Your task to perform on an android device: allow cookies in the chrome app Image 0: 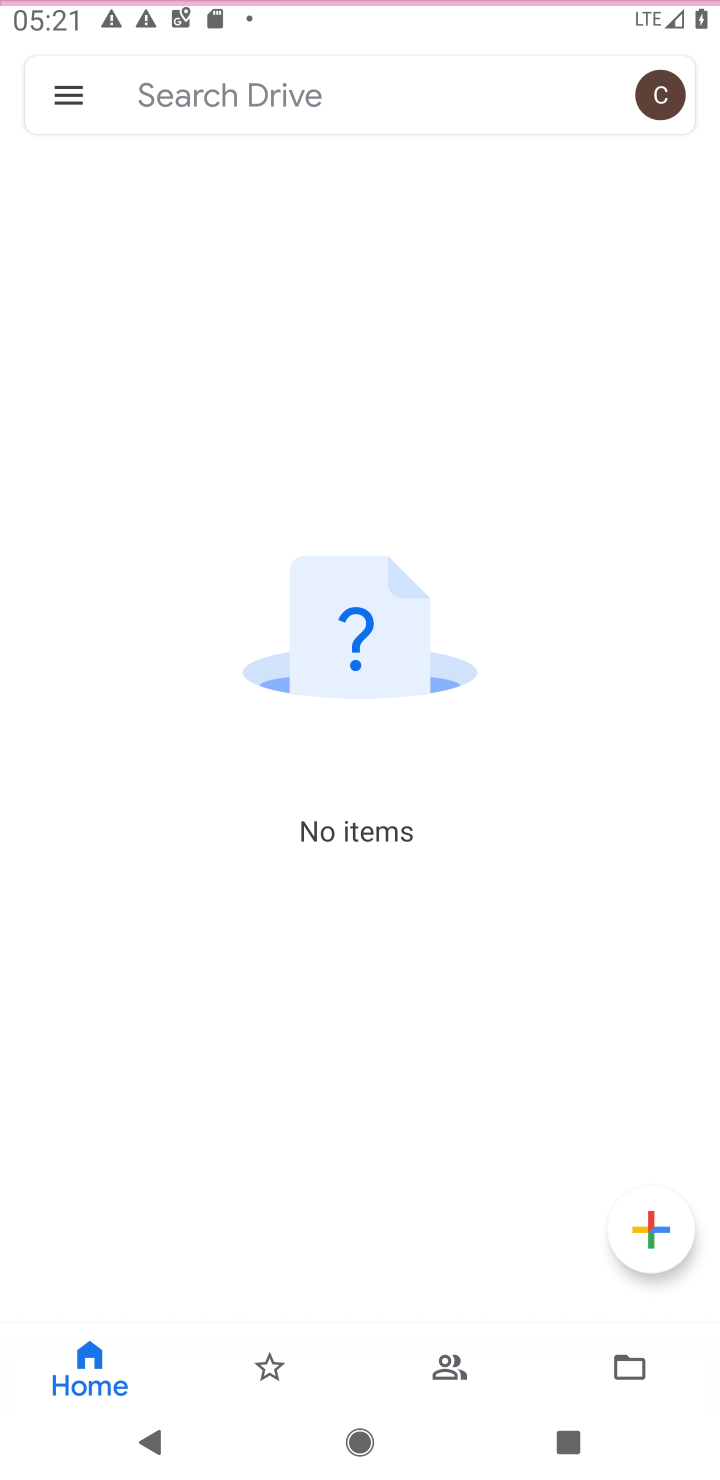
Step 0: press home button
Your task to perform on an android device: allow cookies in the chrome app Image 1: 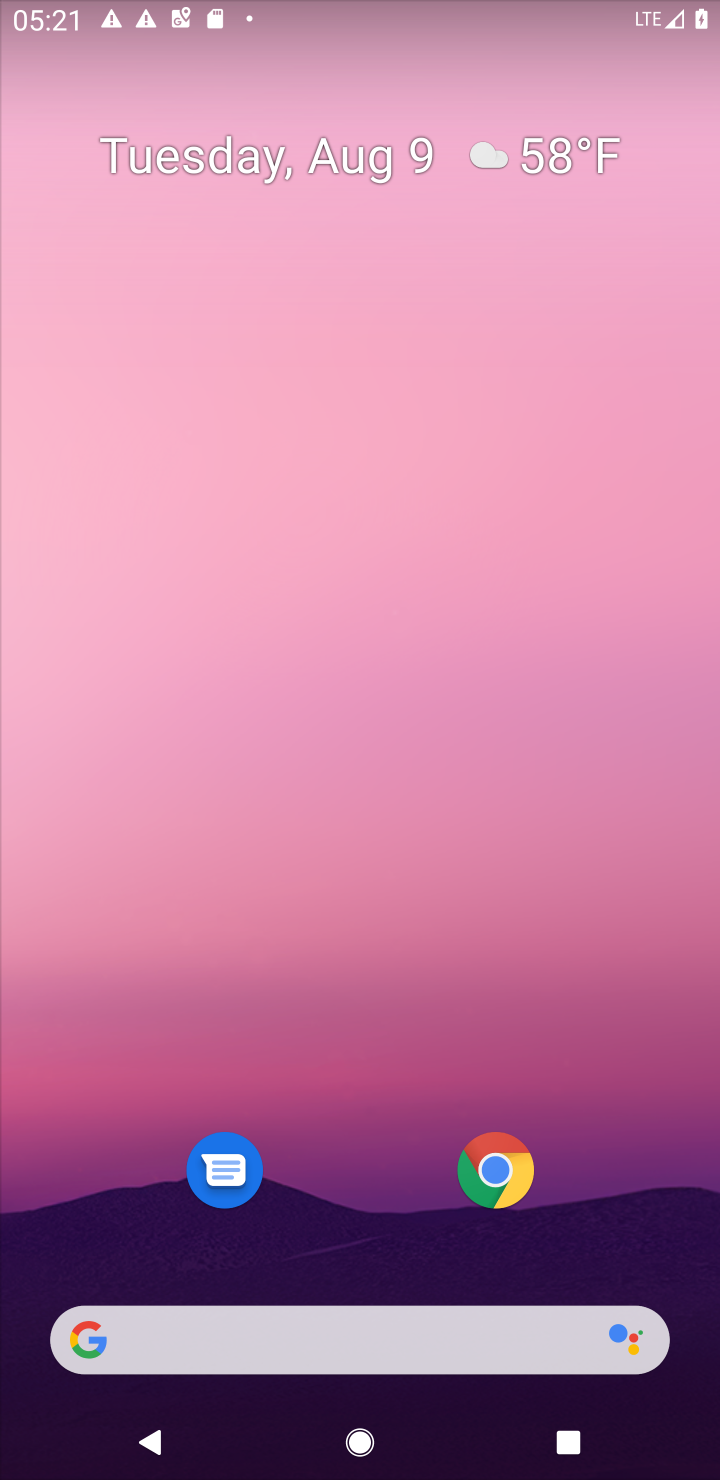
Step 1: click (486, 1172)
Your task to perform on an android device: allow cookies in the chrome app Image 2: 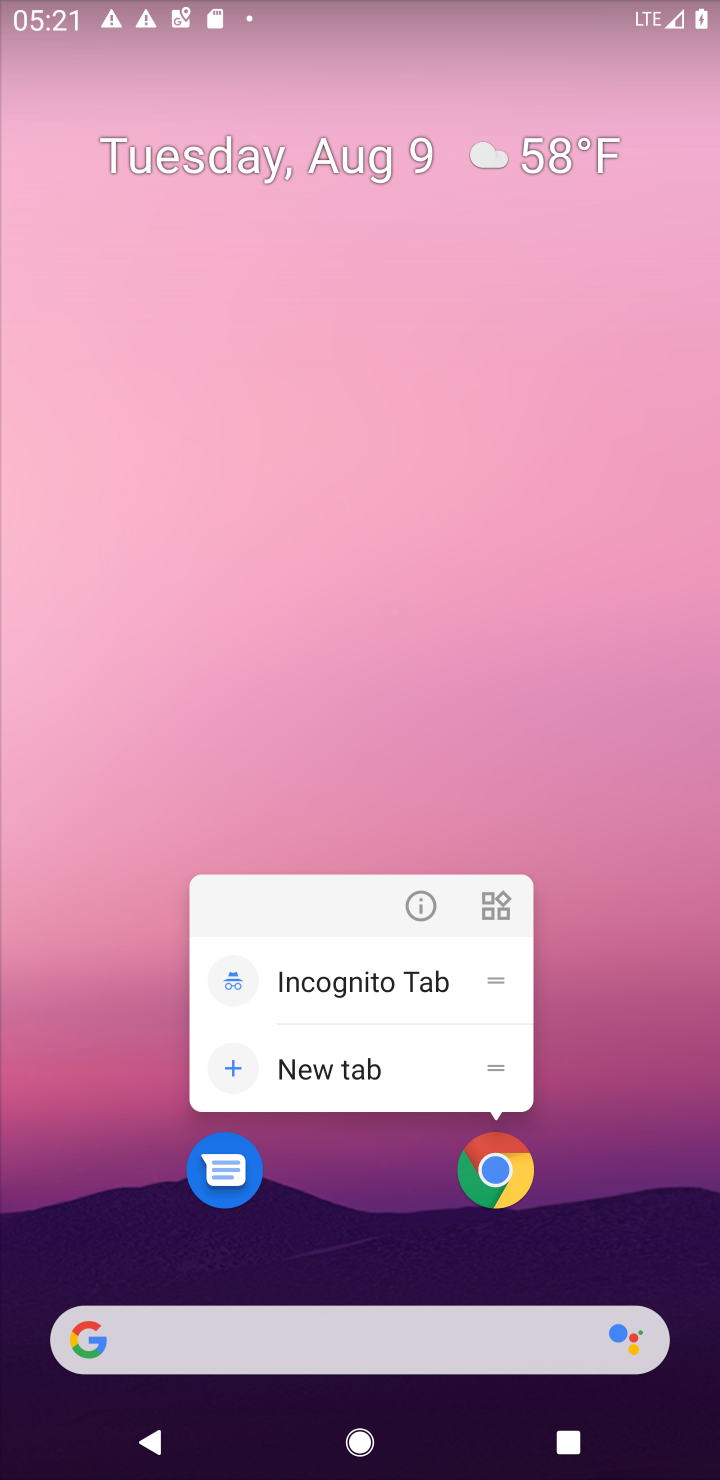
Step 2: click (475, 1189)
Your task to perform on an android device: allow cookies in the chrome app Image 3: 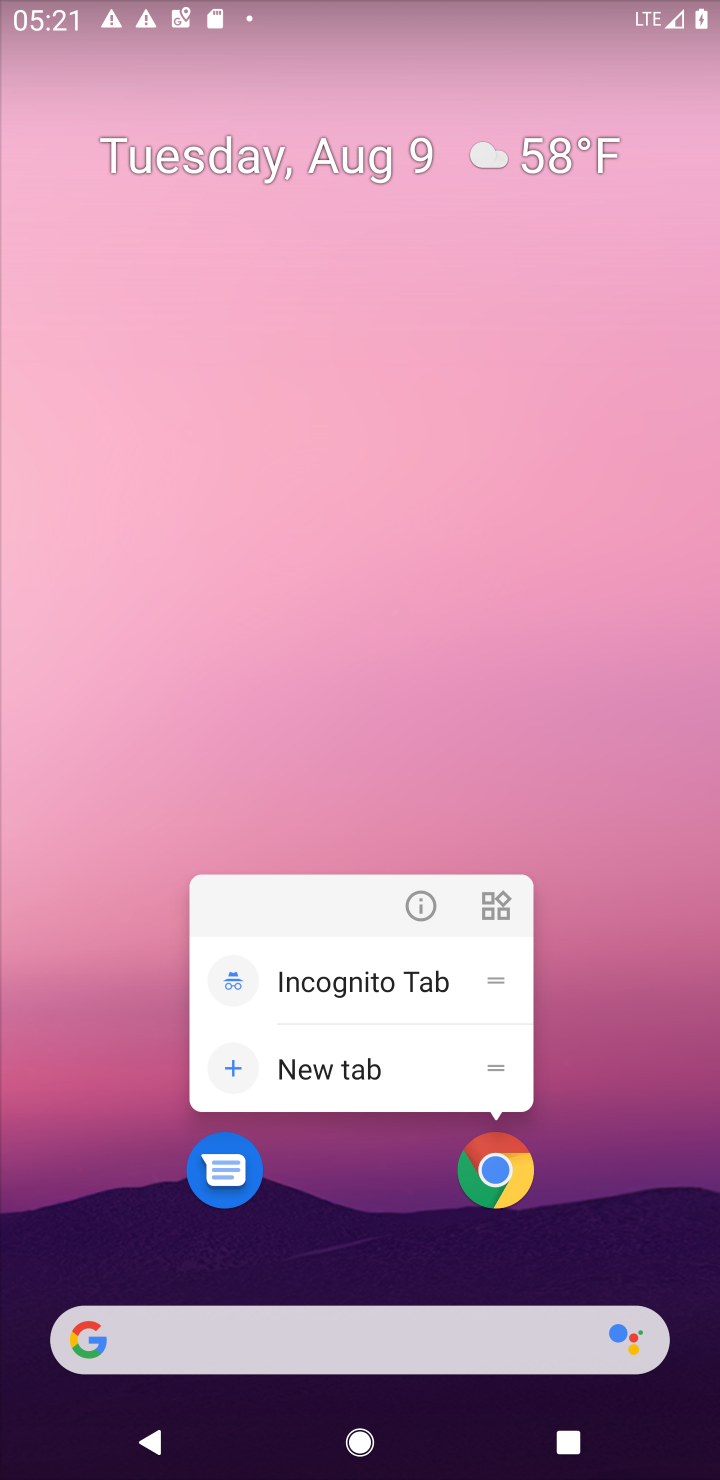
Step 3: click (475, 1166)
Your task to perform on an android device: allow cookies in the chrome app Image 4: 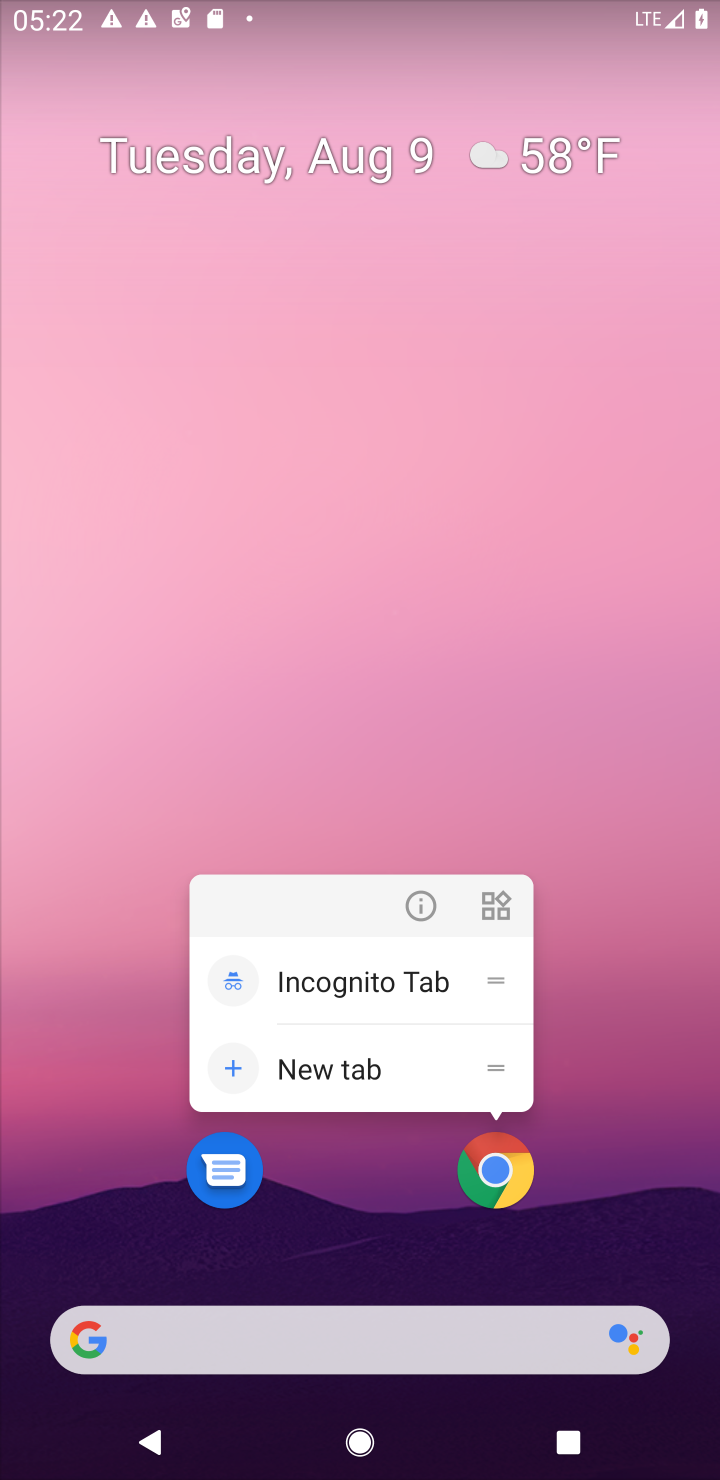
Step 4: click (486, 1194)
Your task to perform on an android device: allow cookies in the chrome app Image 5: 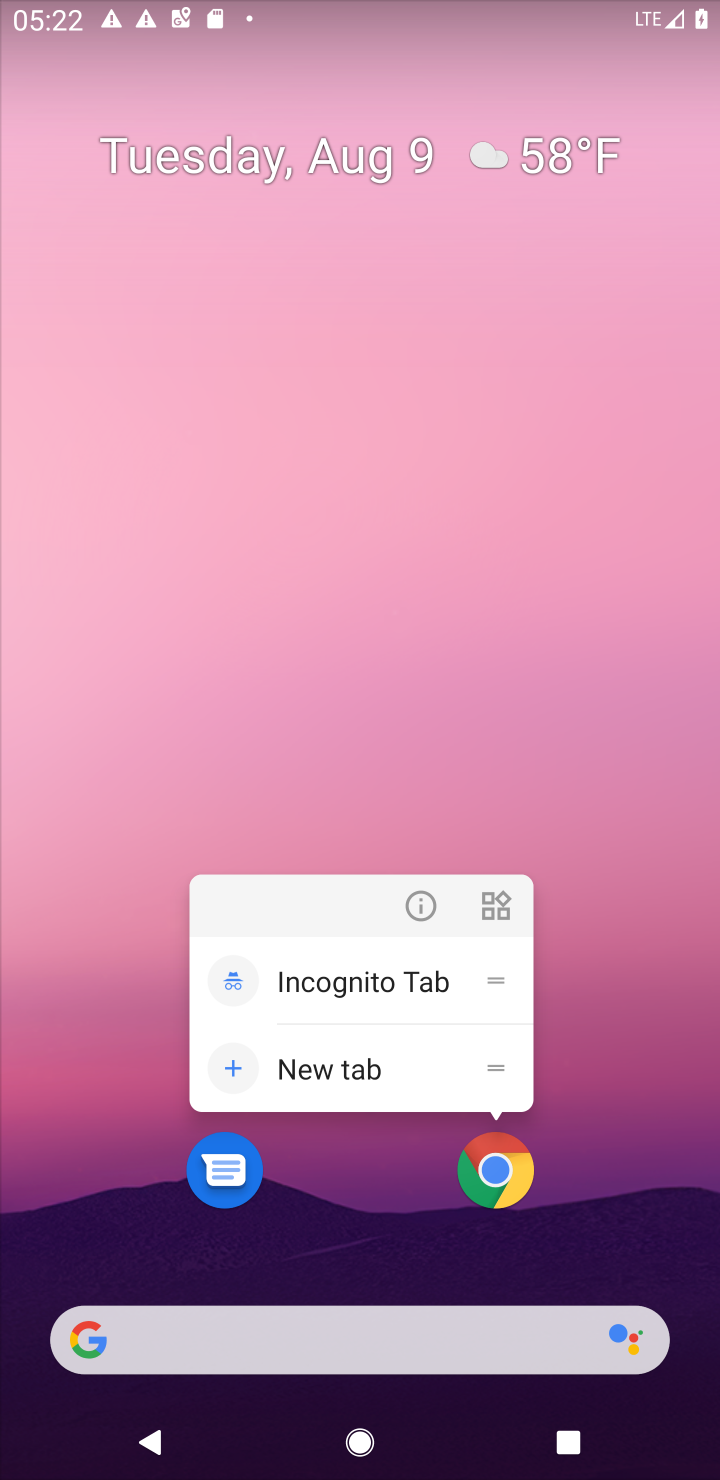
Step 5: click (512, 1188)
Your task to perform on an android device: allow cookies in the chrome app Image 6: 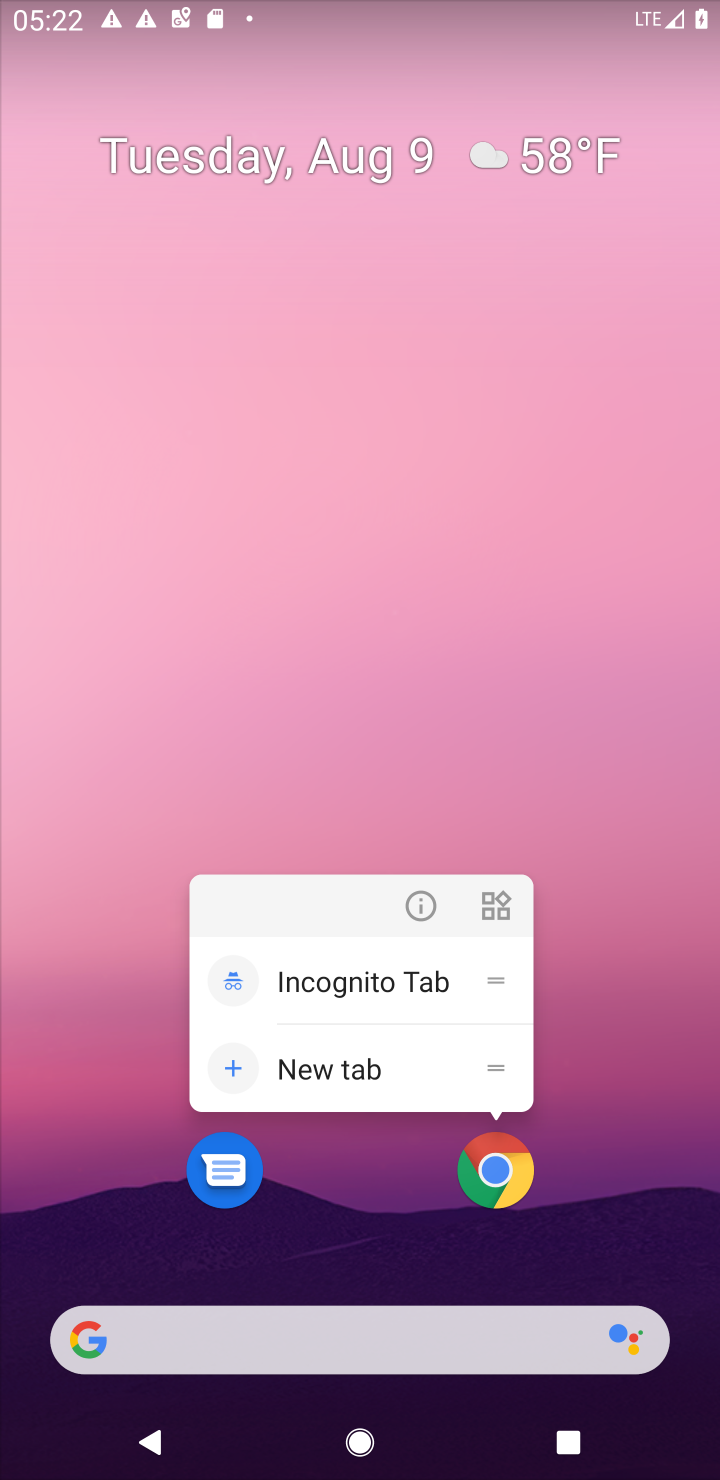
Step 6: click (488, 1164)
Your task to perform on an android device: allow cookies in the chrome app Image 7: 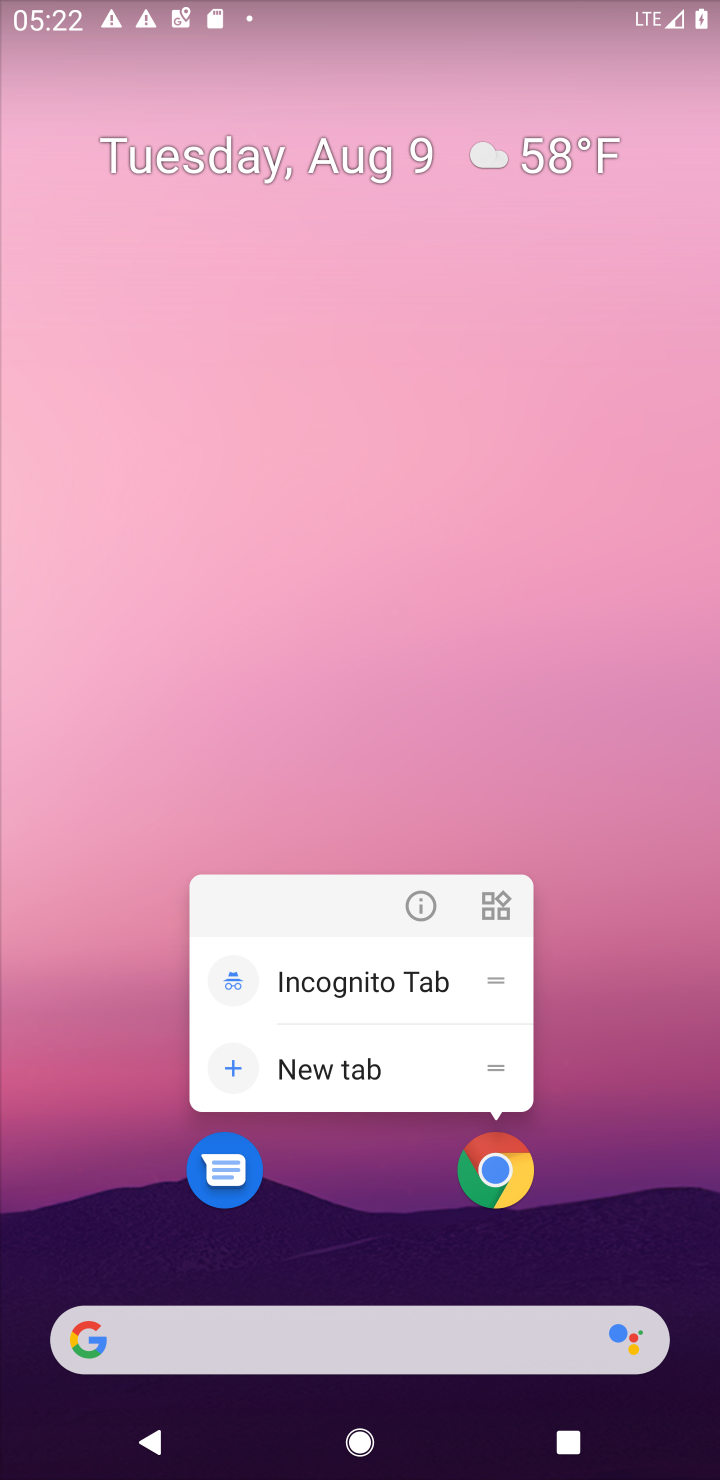
Step 7: click (473, 1172)
Your task to perform on an android device: allow cookies in the chrome app Image 8: 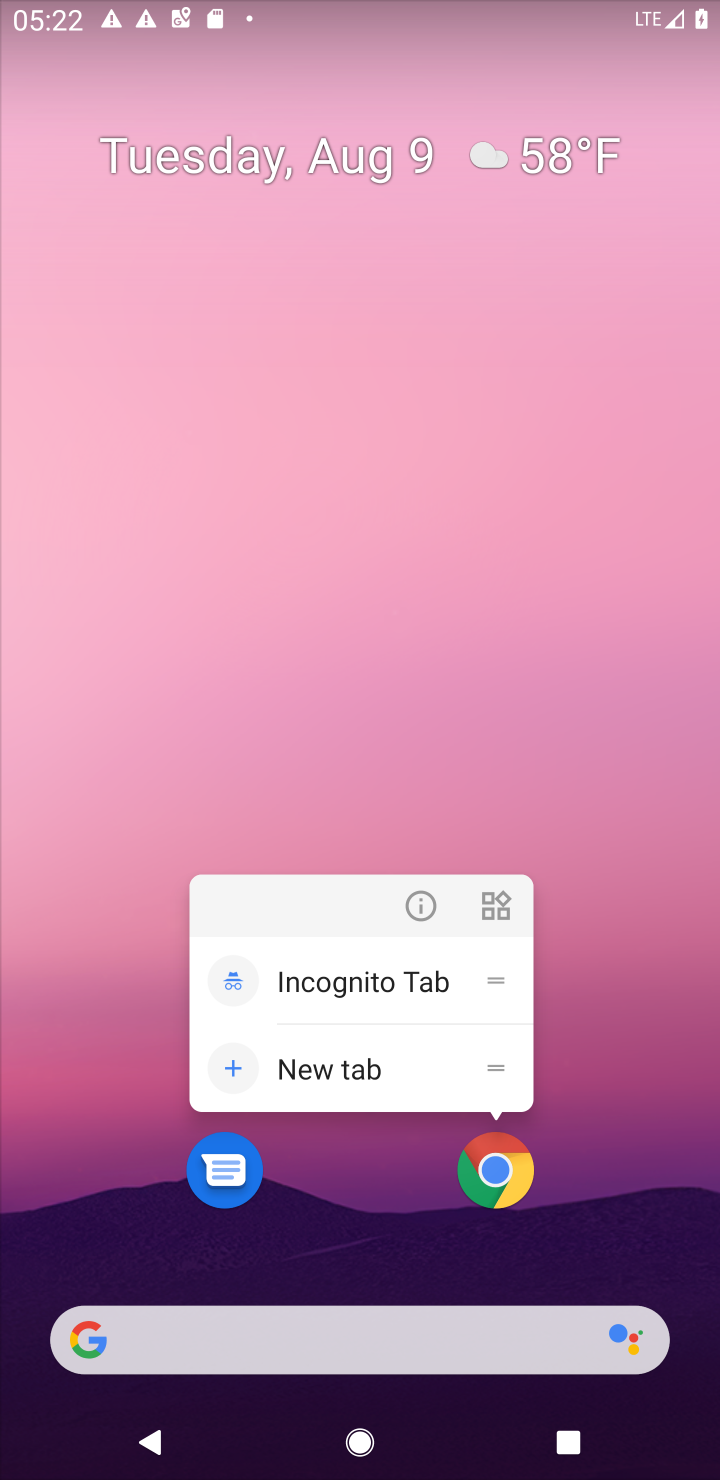
Step 8: click (497, 1176)
Your task to perform on an android device: allow cookies in the chrome app Image 9: 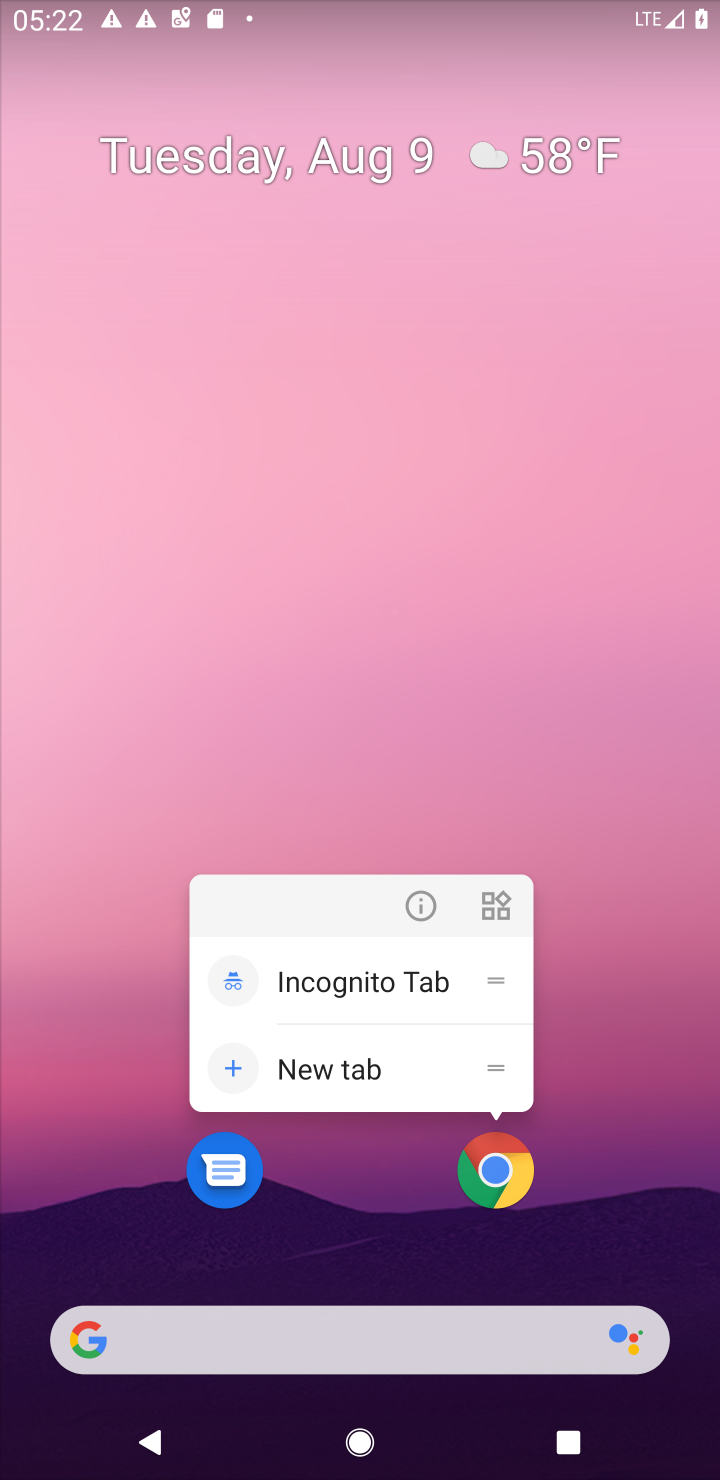
Step 9: click (535, 1189)
Your task to perform on an android device: allow cookies in the chrome app Image 10: 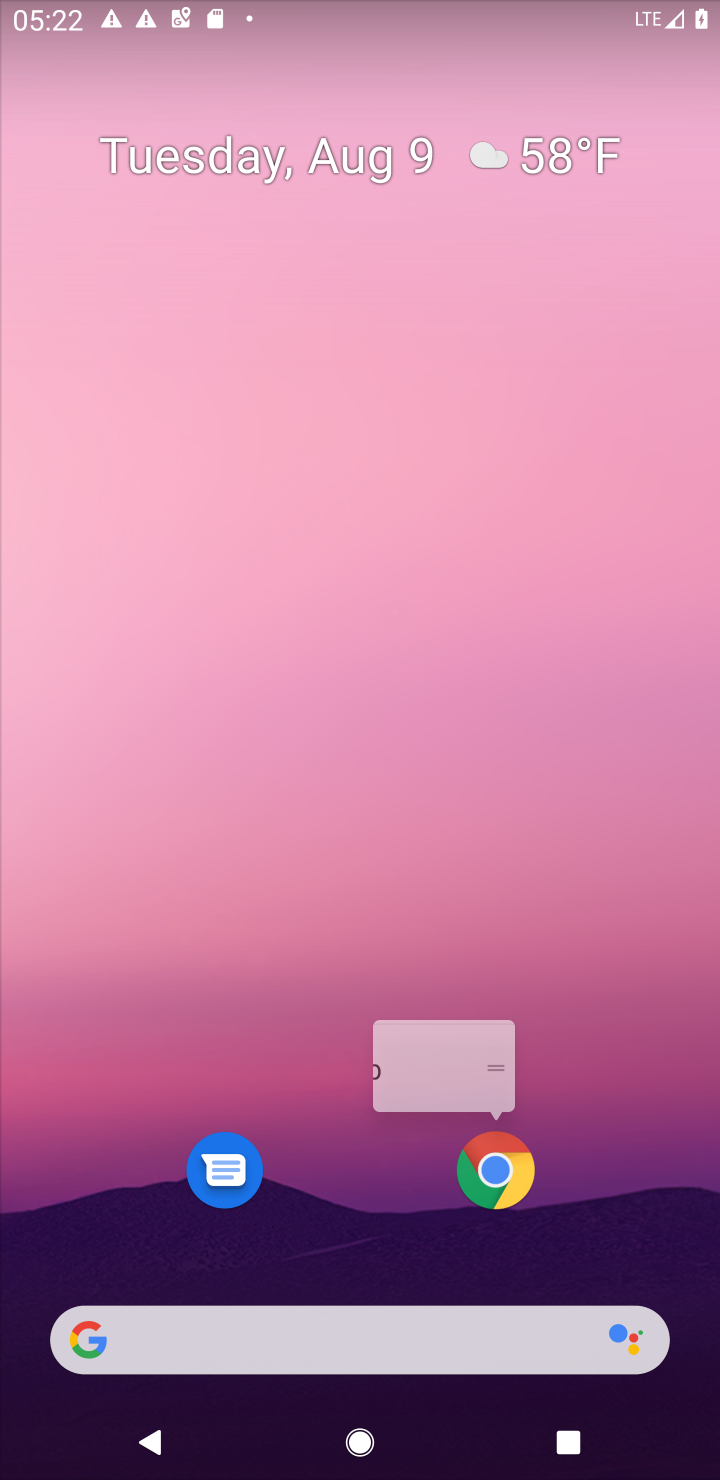
Step 10: click (511, 1178)
Your task to perform on an android device: allow cookies in the chrome app Image 11: 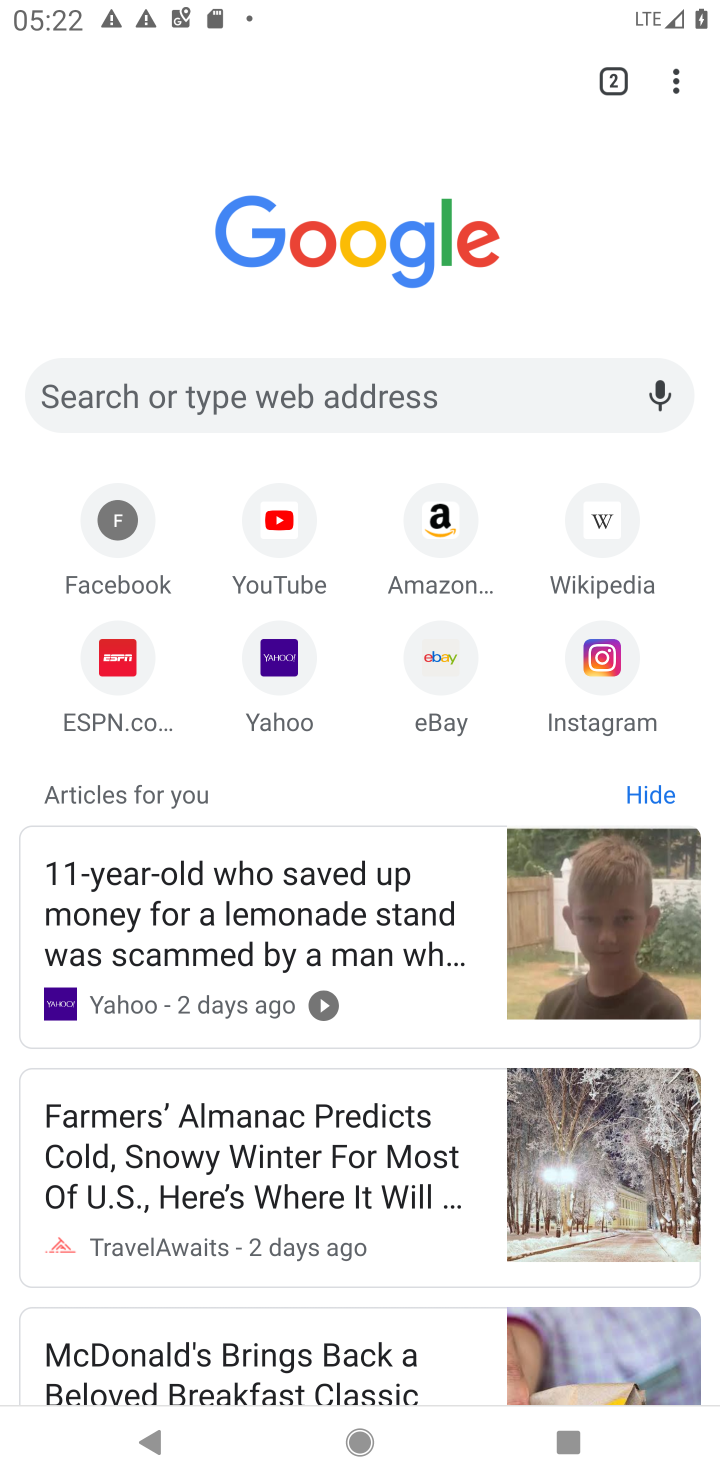
Step 11: drag from (669, 63) to (396, 683)
Your task to perform on an android device: allow cookies in the chrome app Image 12: 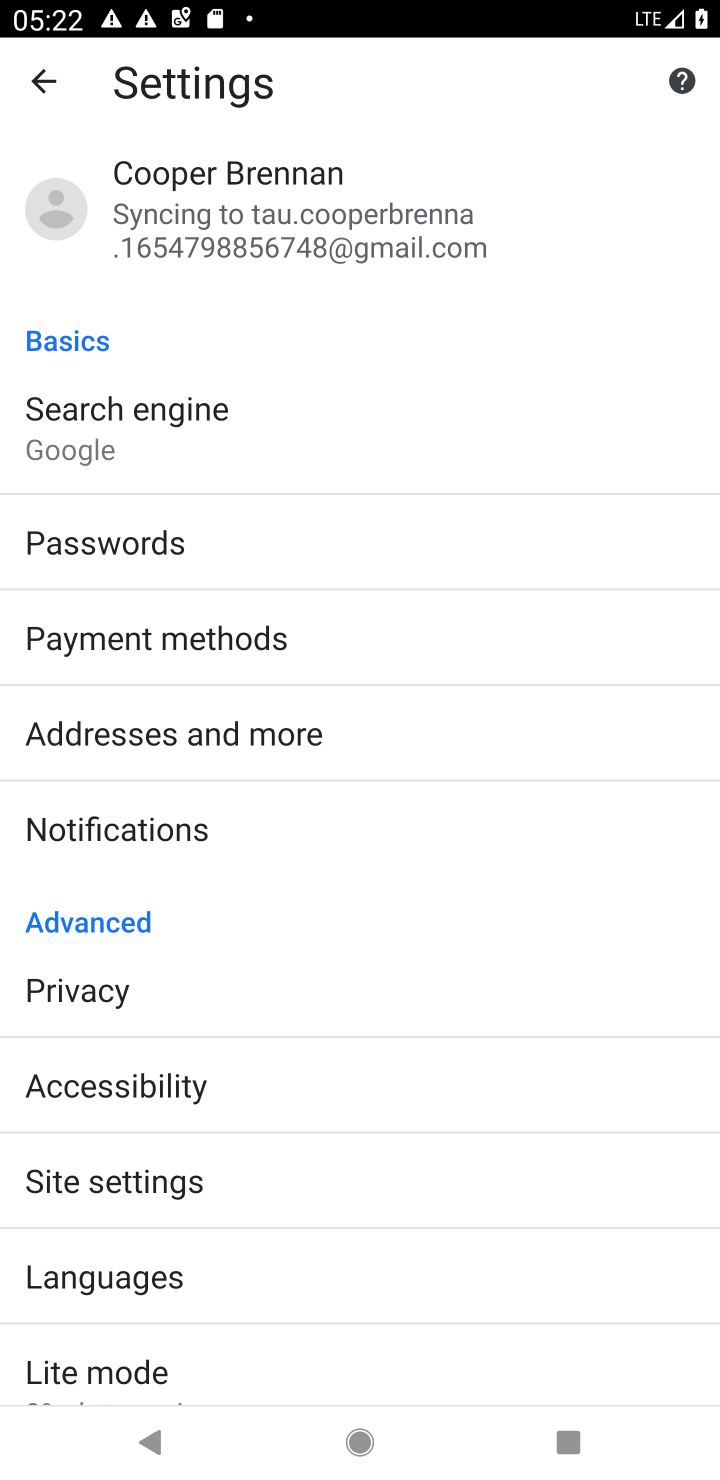
Step 12: click (99, 1176)
Your task to perform on an android device: allow cookies in the chrome app Image 13: 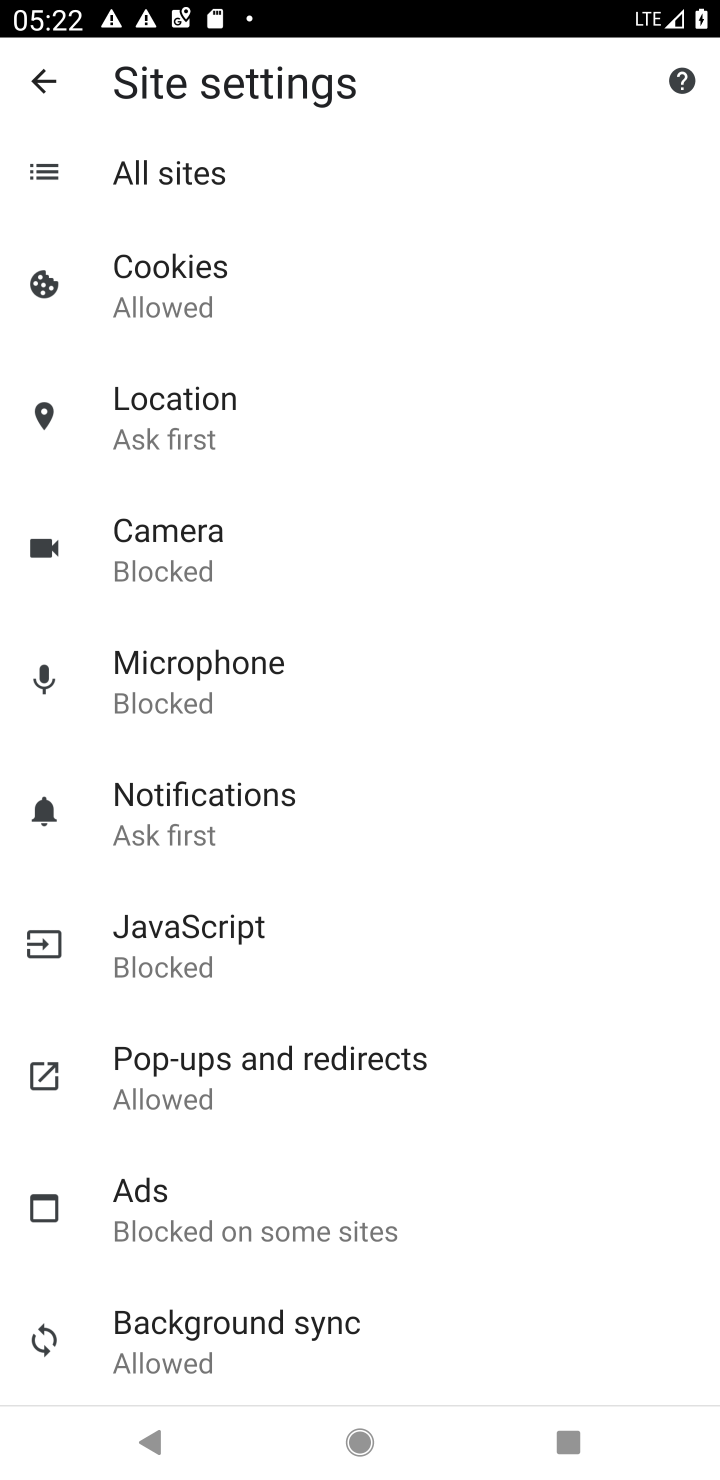
Step 13: click (177, 284)
Your task to perform on an android device: allow cookies in the chrome app Image 14: 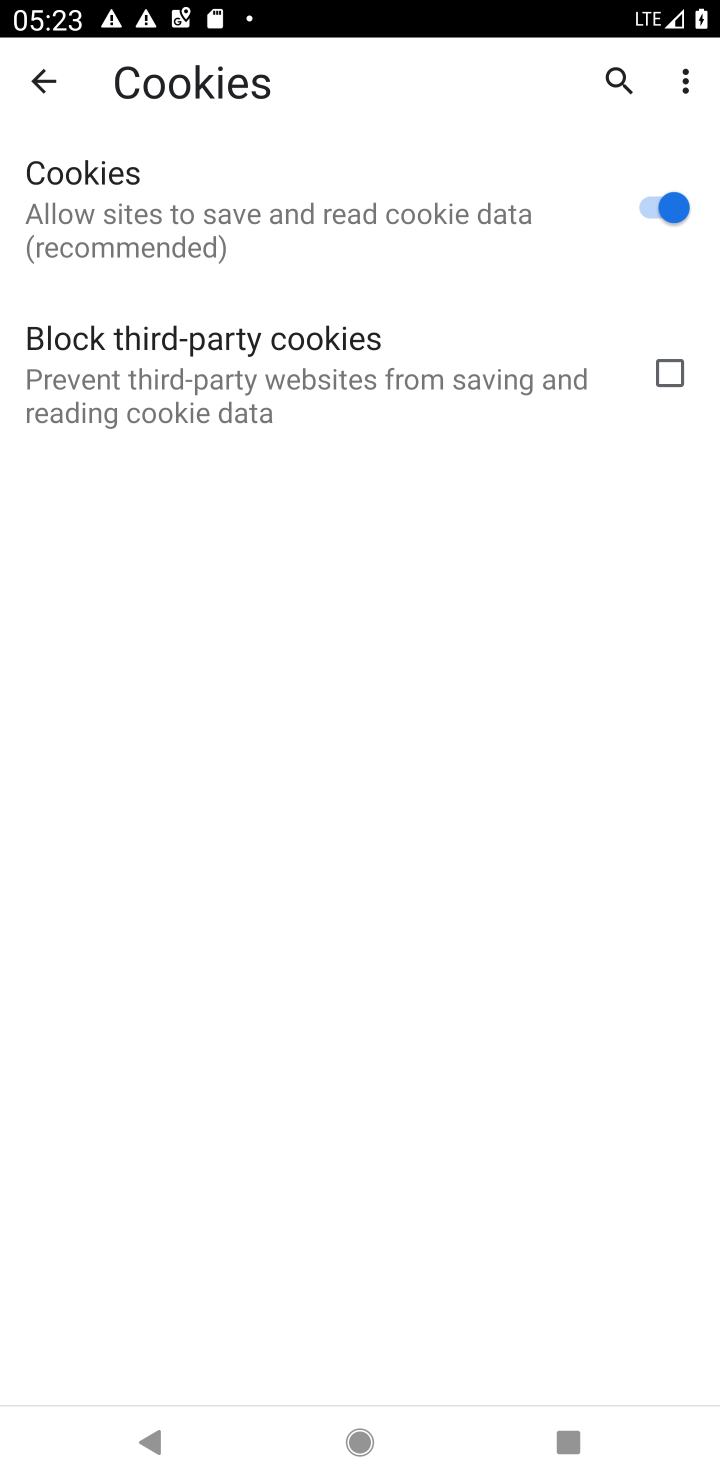
Step 14: task complete